Your task to perform on an android device: Open the calendar app, open the side menu, and click the "Day" option Image 0: 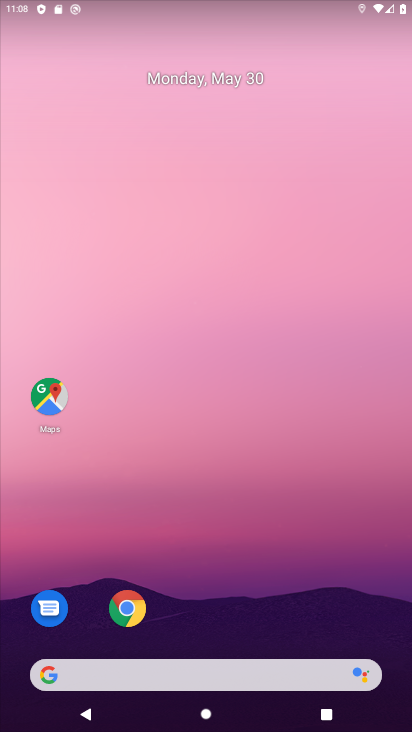
Step 0: drag from (299, 643) to (85, 5)
Your task to perform on an android device: Open the calendar app, open the side menu, and click the "Day" option Image 1: 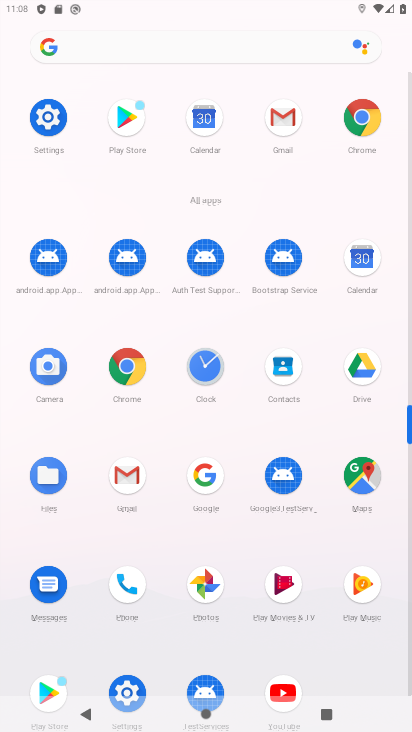
Step 1: click (357, 266)
Your task to perform on an android device: Open the calendar app, open the side menu, and click the "Day" option Image 2: 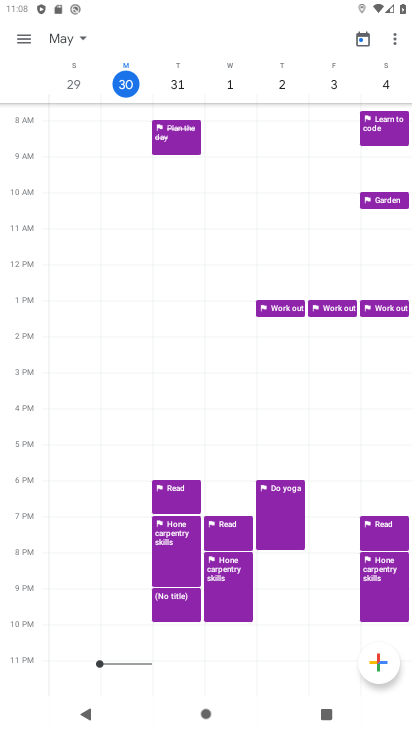
Step 2: click (24, 38)
Your task to perform on an android device: Open the calendar app, open the side menu, and click the "Day" option Image 3: 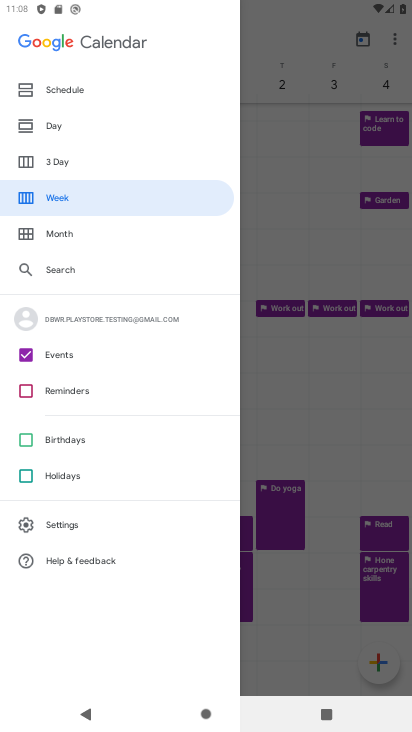
Step 3: click (41, 123)
Your task to perform on an android device: Open the calendar app, open the side menu, and click the "Day" option Image 4: 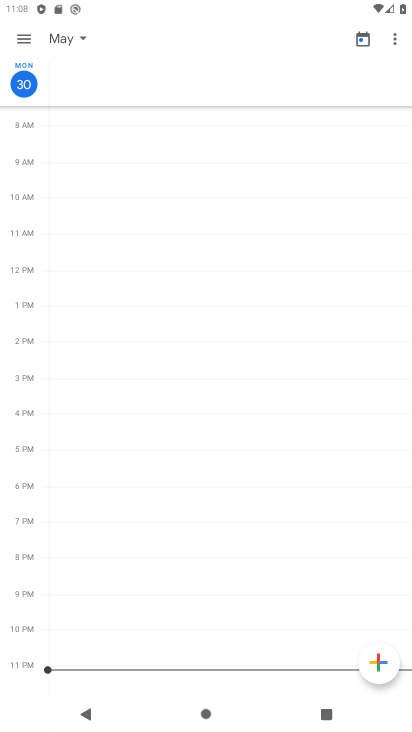
Step 4: task complete